Your task to perform on an android device: check the backup settings in the google photos Image 0: 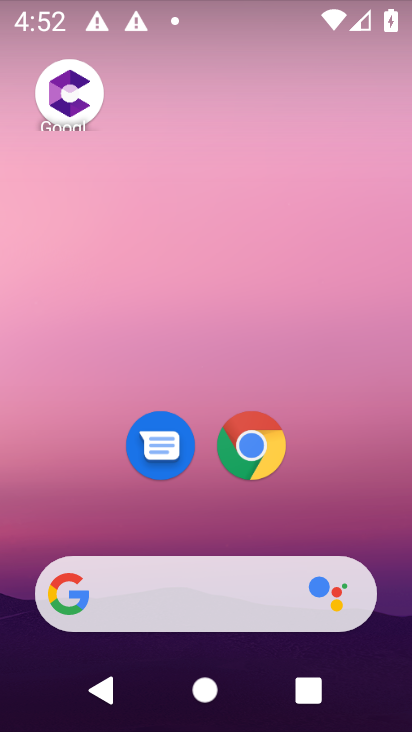
Step 0: drag from (199, 472) to (218, 39)
Your task to perform on an android device: check the backup settings in the google photos Image 1: 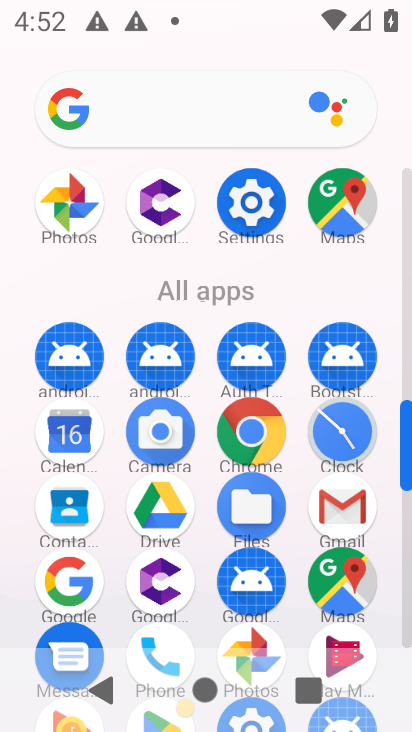
Step 1: click (245, 211)
Your task to perform on an android device: check the backup settings in the google photos Image 2: 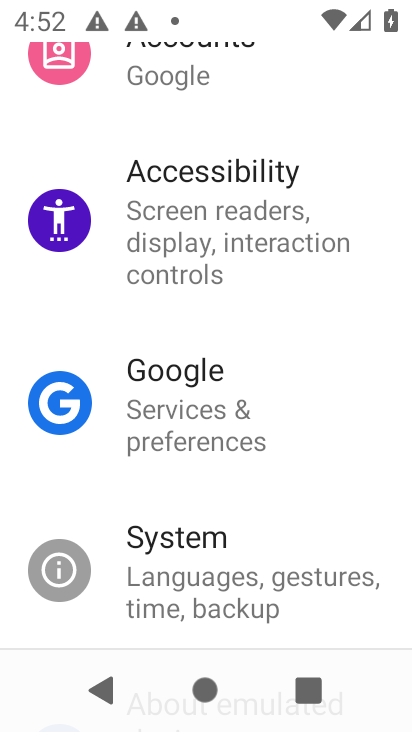
Step 2: press back button
Your task to perform on an android device: check the backup settings in the google photos Image 3: 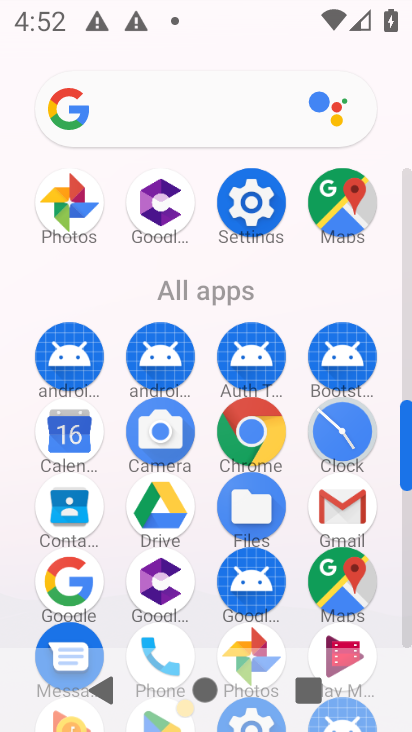
Step 3: click (243, 633)
Your task to perform on an android device: check the backup settings in the google photos Image 4: 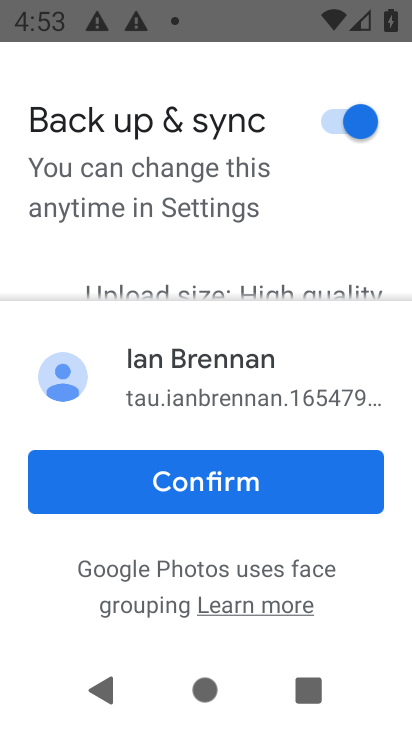
Step 4: click (264, 506)
Your task to perform on an android device: check the backup settings in the google photos Image 5: 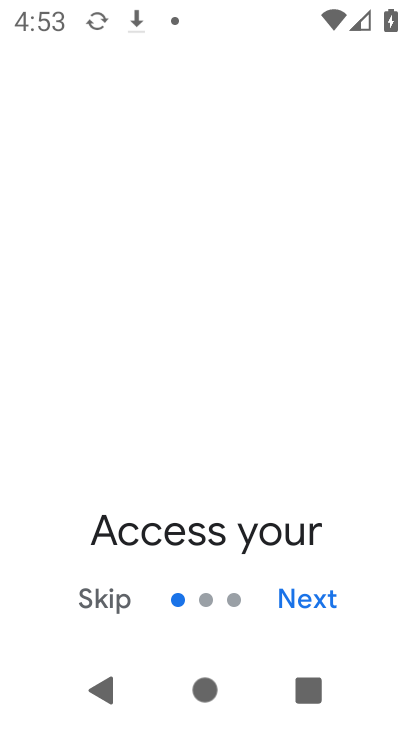
Step 5: click (304, 591)
Your task to perform on an android device: check the backup settings in the google photos Image 6: 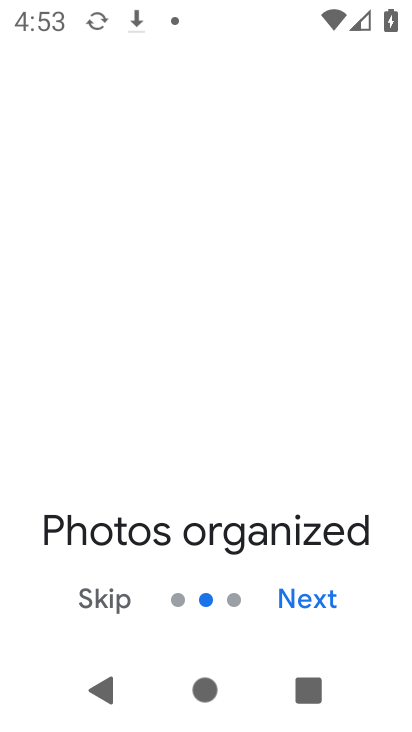
Step 6: click (304, 591)
Your task to perform on an android device: check the backup settings in the google photos Image 7: 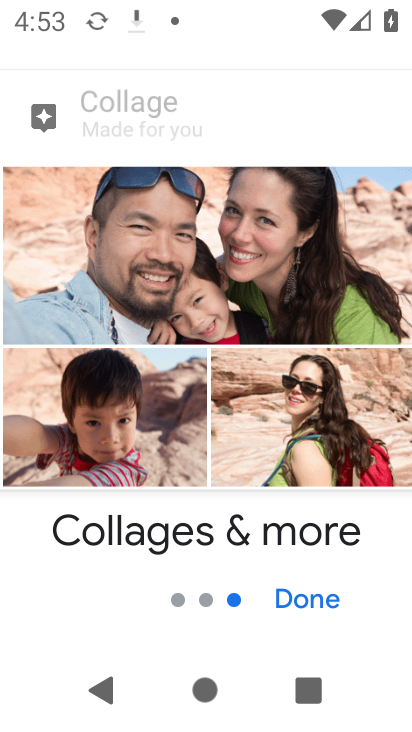
Step 7: click (304, 591)
Your task to perform on an android device: check the backup settings in the google photos Image 8: 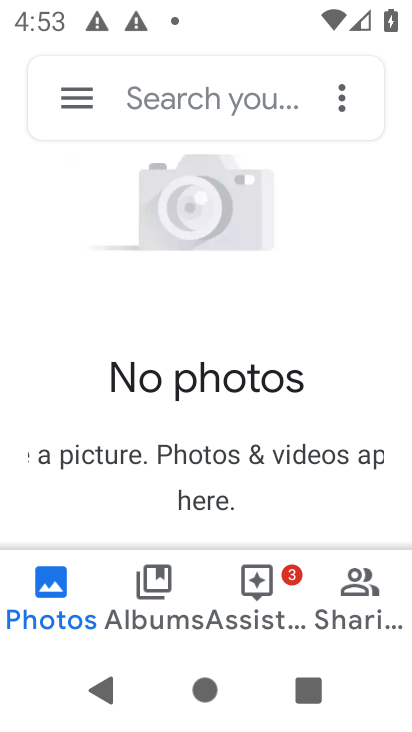
Step 8: click (84, 89)
Your task to perform on an android device: check the backup settings in the google photos Image 9: 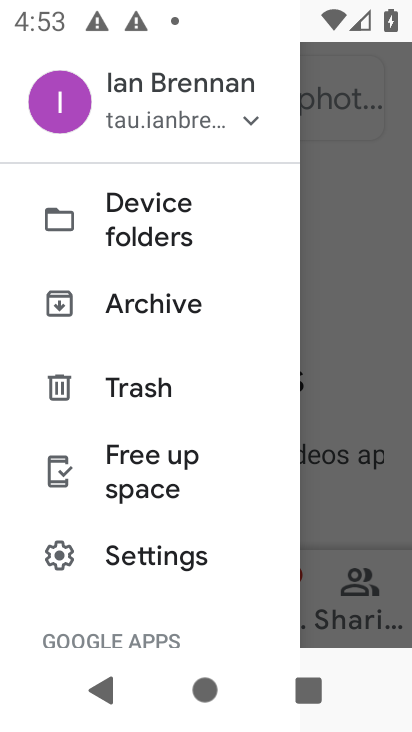
Step 9: click (138, 556)
Your task to perform on an android device: check the backup settings in the google photos Image 10: 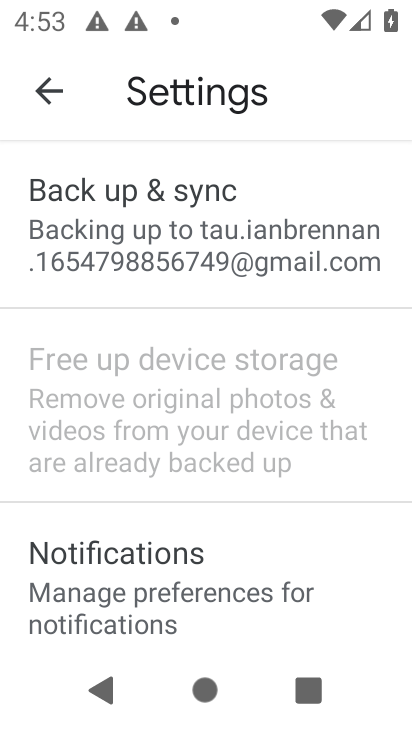
Step 10: click (232, 223)
Your task to perform on an android device: check the backup settings in the google photos Image 11: 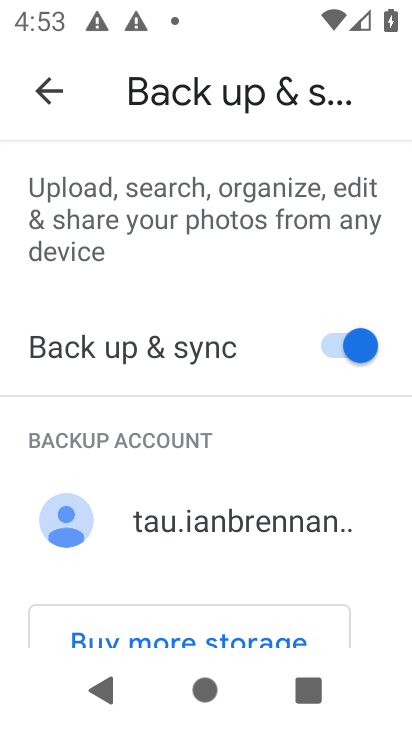
Step 11: task complete